Your task to perform on an android device: delete a single message in the gmail app Image 0: 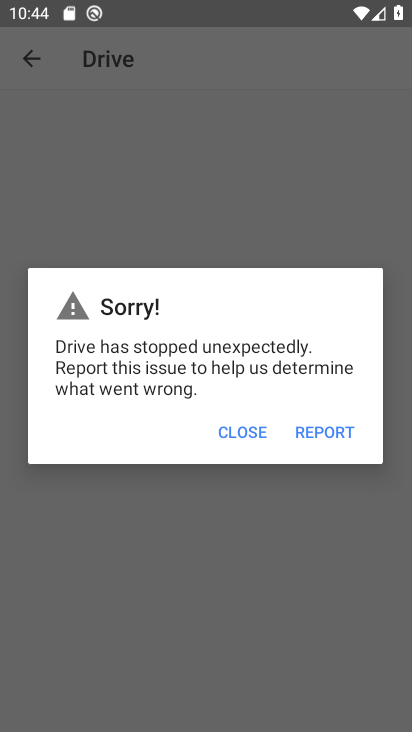
Step 0: press home button
Your task to perform on an android device: delete a single message in the gmail app Image 1: 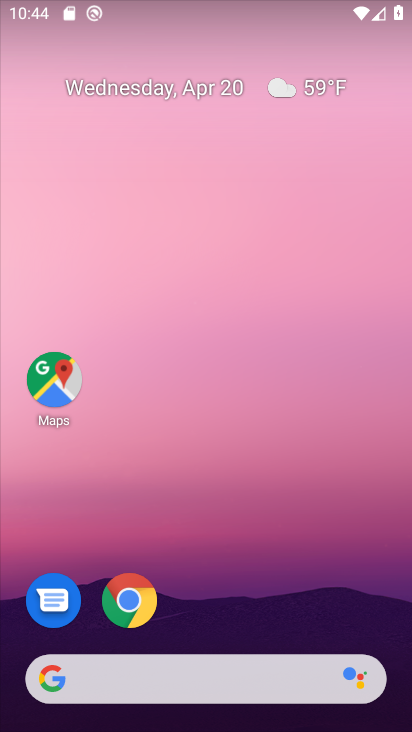
Step 1: drag from (273, 571) to (282, 59)
Your task to perform on an android device: delete a single message in the gmail app Image 2: 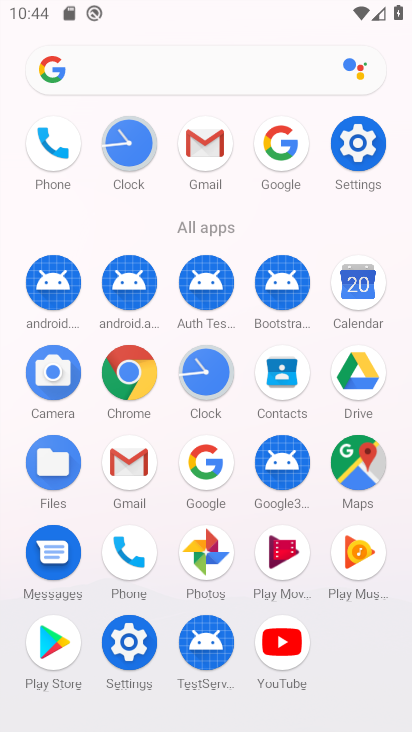
Step 2: click (216, 146)
Your task to perform on an android device: delete a single message in the gmail app Image 3: 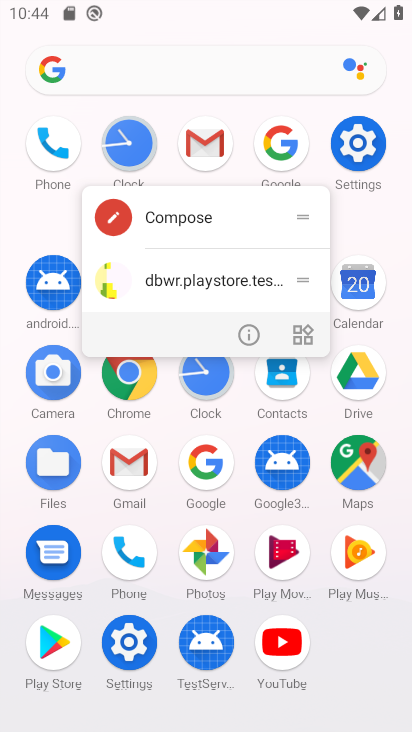
Step 3: click (216, 148)
Your task to perform on an android device: delete a single message in the gmail app Image 4: 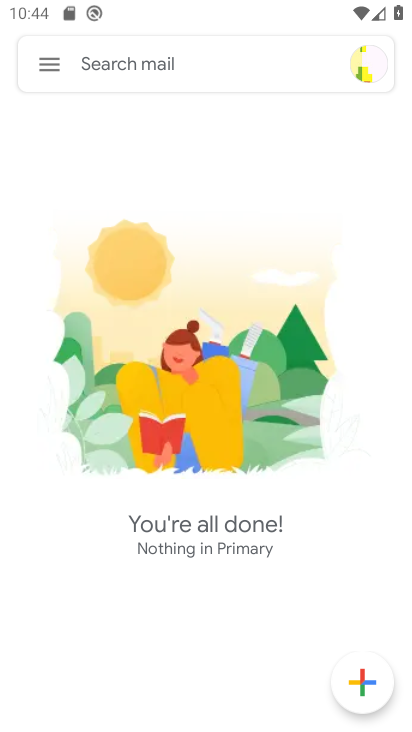
Step 4: click (46, 59)
Your task to perform on an android device: delete a single message in the gmail app Image 5: 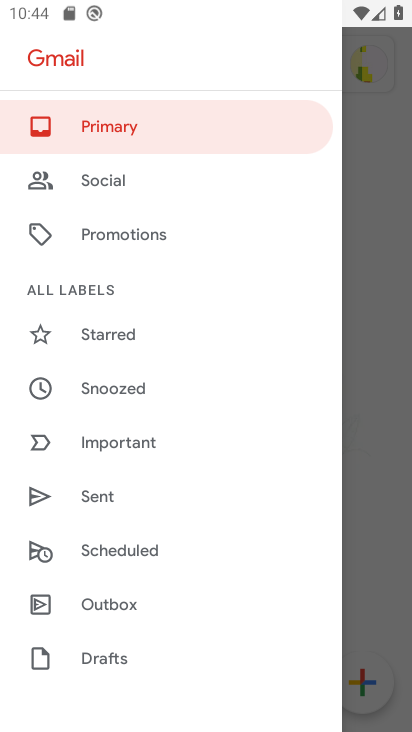
Step 5: drag from (228, 542) to (225, 231)
Your task to perform on an android device: delete a single message in the gmail app Image 6: 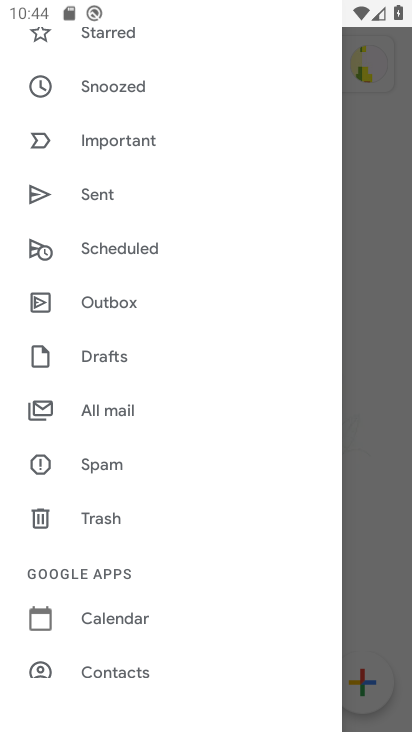
Step 6: click (143, 413)
Your task to perform on an android device: delete a single message in the gmail app Image 7: 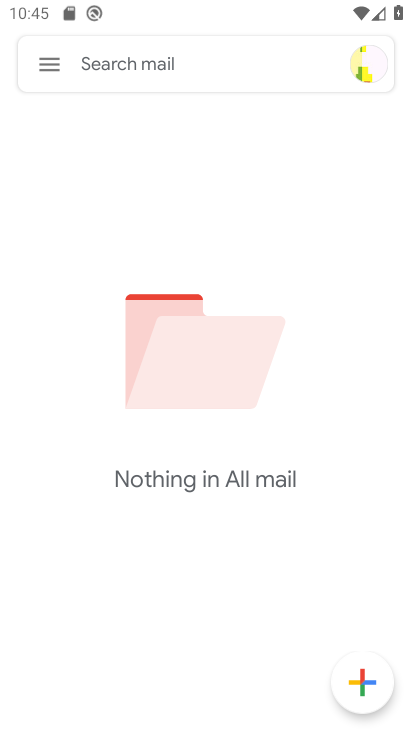
Step 7: task complete